Your task to perform on an android device: Search for bose soundsport free on newegg.com, select the first entry, add it to the cart, then select checkout. Image 0: 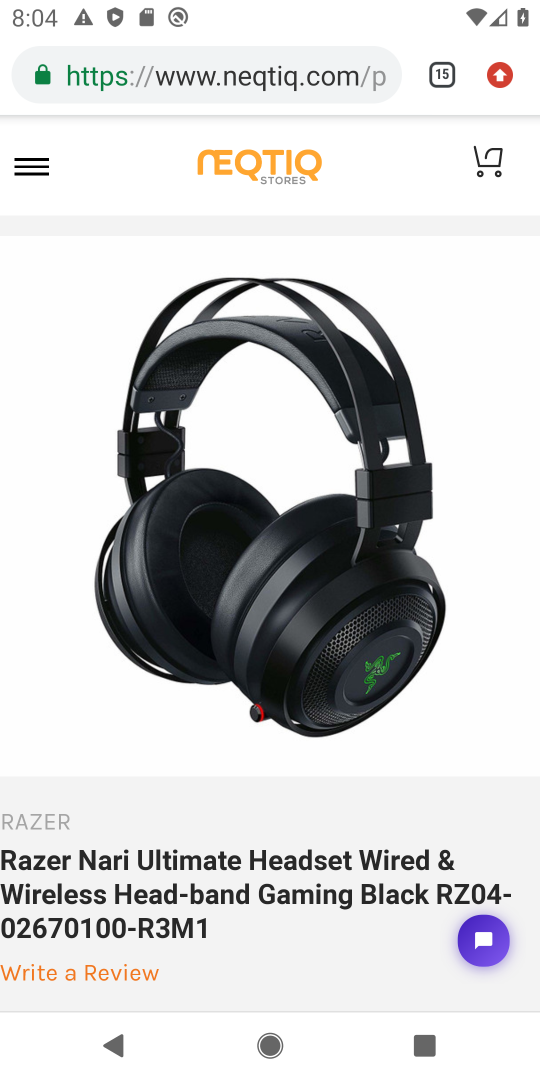
Step 0: task complete